Your task to perform on an android device: star an email in the gmail app Image 0: 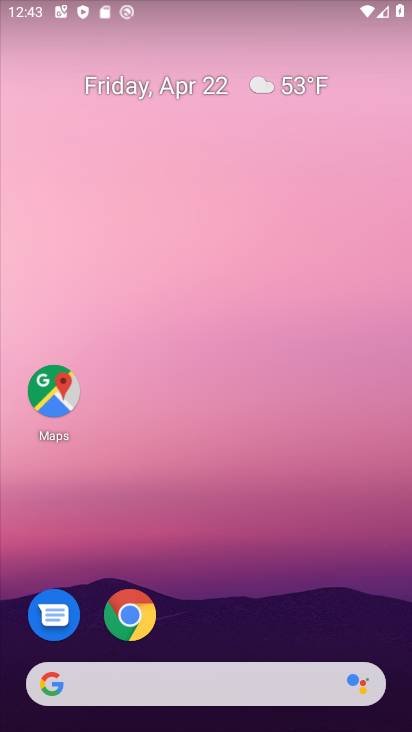
Step 0: drag from (381, 642) to (390, 20)
Your task to perform on an android device: star an email in the gmail app Image 1: 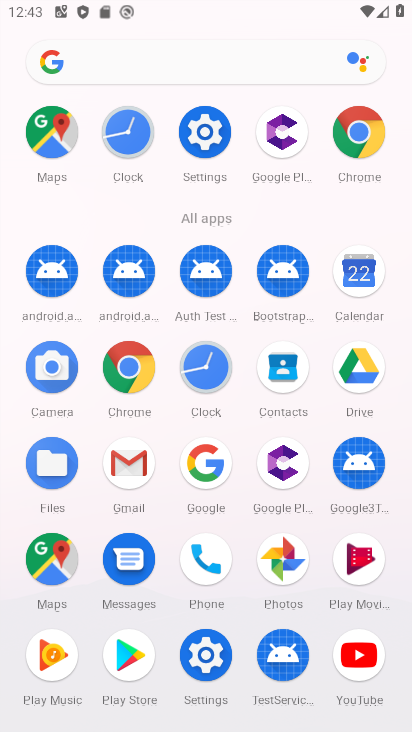
Step 1: click (128, 470)
Your task to perform on an android device: star an email in the gmail app Image 2: 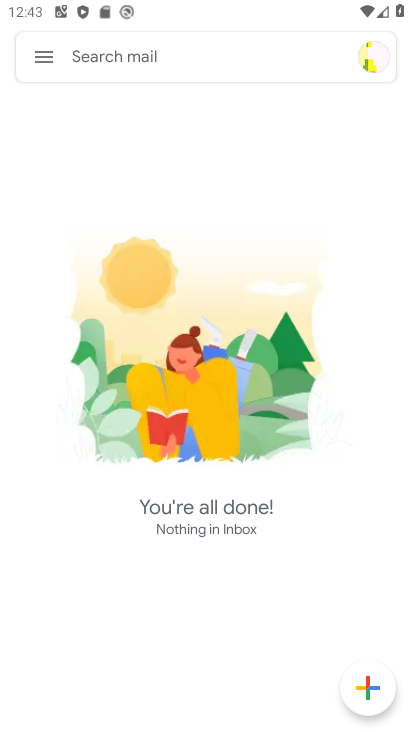
Step 2: click (48, 63)
Your task to perform on an android device: star an email in the gmail app Image 3: 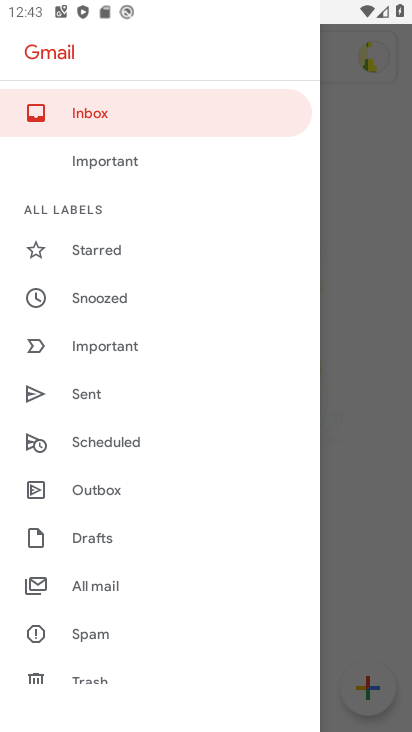
Step 3: click (79, 585)
Your task to perform on an android device: star an email in the gmail app Image 4: 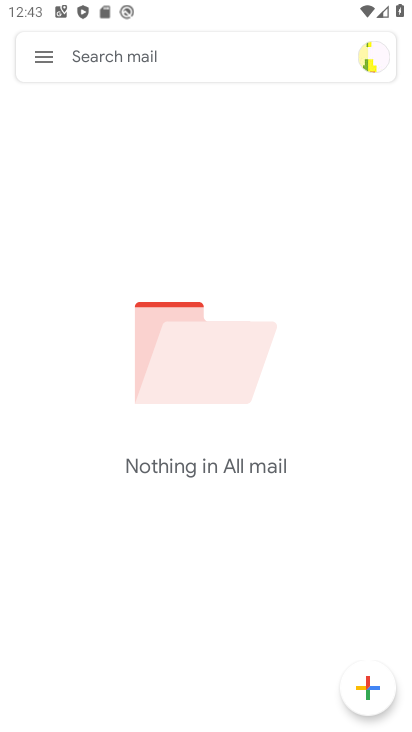
Step 4: task complete